Your task to perform on an android device: Open Amazon Image 0: 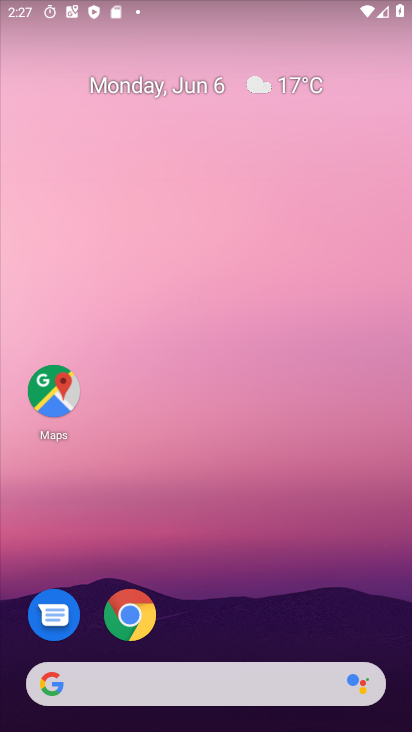
Step 0: drag from (182, 595) to (212, 113)
Your task to perform on an android device: Open Amazon Image 1: 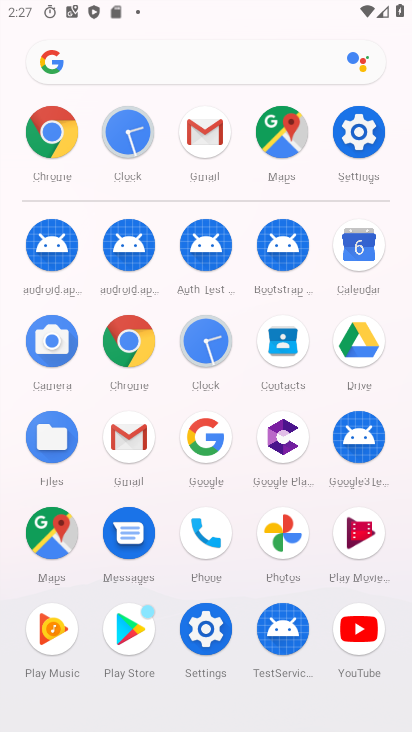
Step 1: drag from (175, 585) to (206, 194)
Your task to perform on an android device: Open Amazon Image 2: 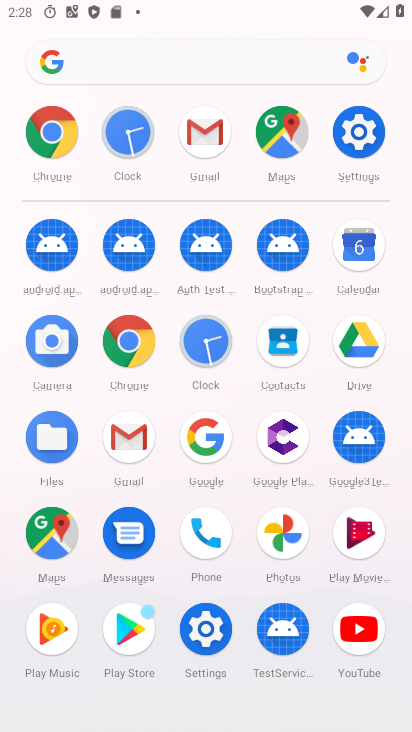
Step 2: click (132, 345)
Your task to perform on an android device: Open Amazon Image 3: 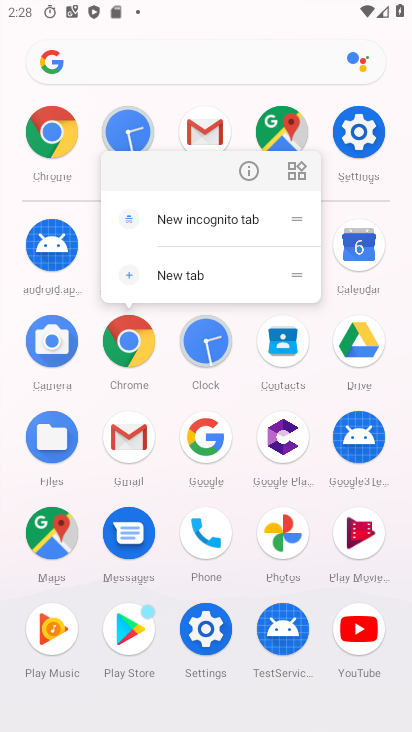
Step 3: click (253, 183)
Your task to perform on an android device: Open Amazon Image 4: 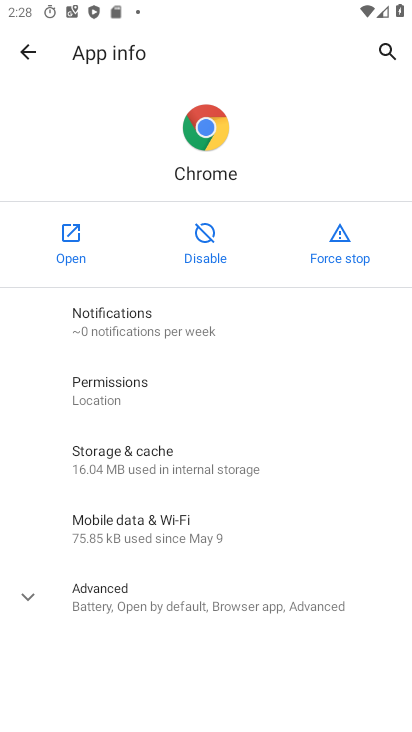
Step 4: click (74, 235)
Your task to perform on an android device: Open Amazon Image 5: 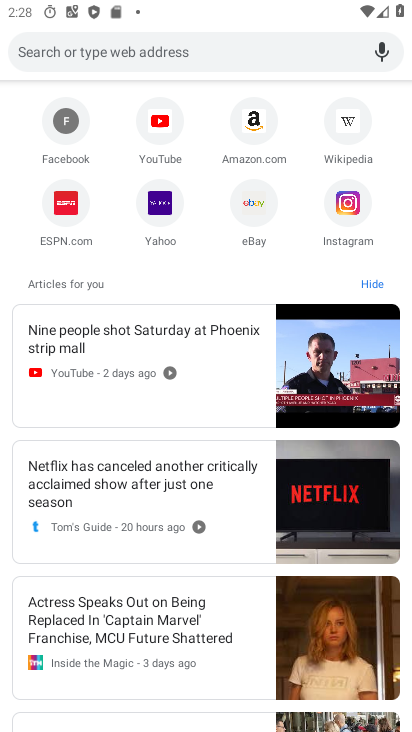
Step 5: drag from (180, 559) to (204, 235)
Your task to perform on an android device: Open Amazon Image 6: 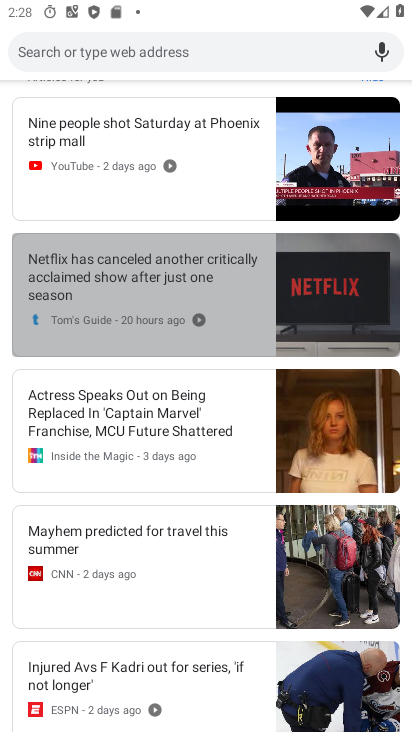
Step 6: drag from (197, 195) to (267, 599)
Your task to perform on an android device: Open Amazon Image 7: 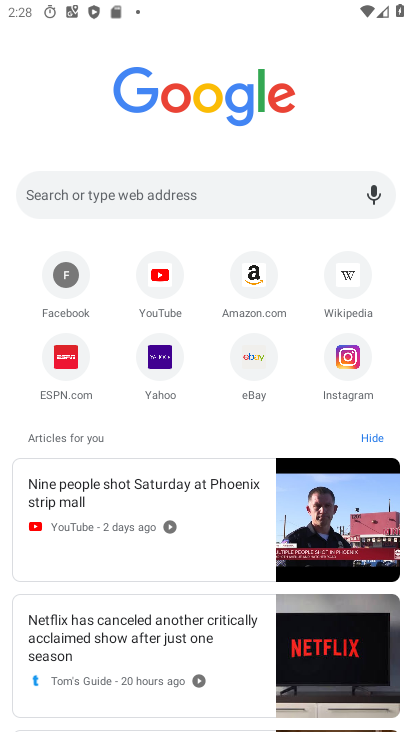
Step 7: click (248, 271)
Your task to perform on an android device: Open Amazon Image 8: 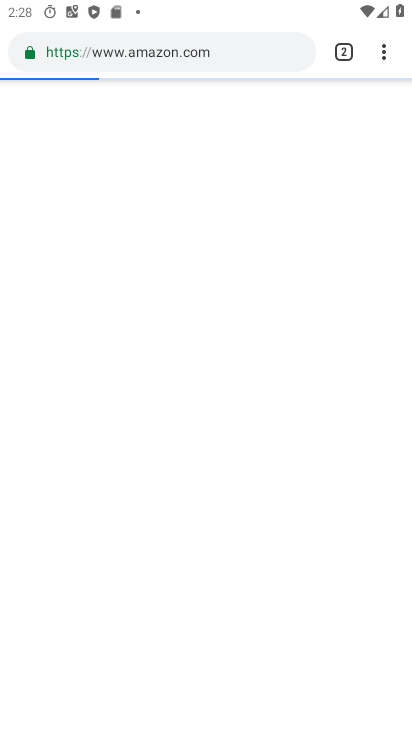
Step 8: task complete